Your task to perform on an android device: turn on notifications settings in the gmail app Image 0: 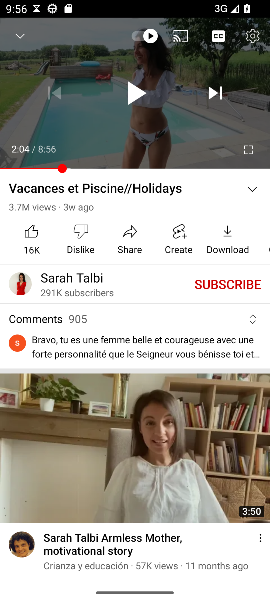
Step 0: press home button
Your task to perform on an android device: turn on notifications settings in the gmail app Image 1: 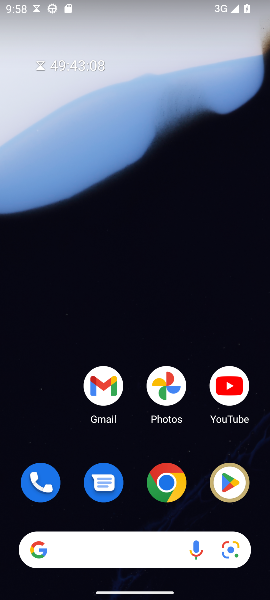
Step 1: drag from (128, 522) to (157, 4)
Your task to perform on an android device: turn on notifications settings in the gmail app Image 2: 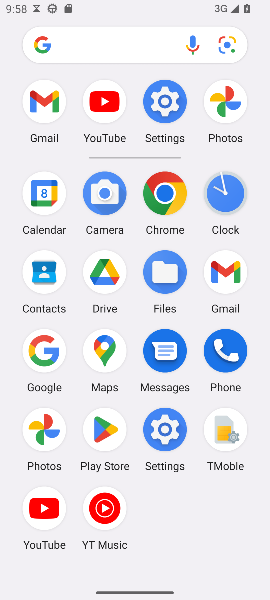
Step 2: click (46, 102)
Your task to perform on an android device: turn on notifications settings in the gmail app Image 3: 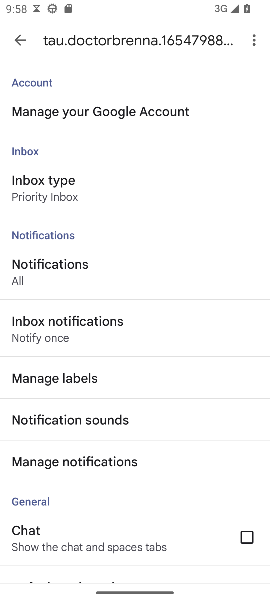
Step 3: click (44, 284)
Your task to perform on an android device: turn on notifications settings in the gmail app Image 4: 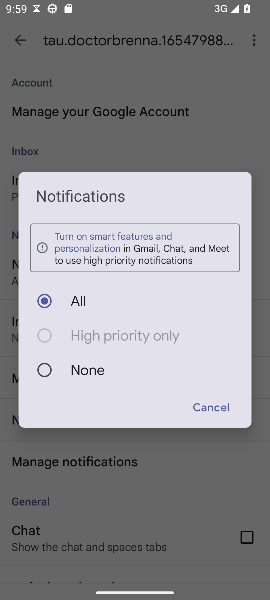
Step 4: task complete